Your task to perform on an android device: Check the latest toasters on Target. Image 0: 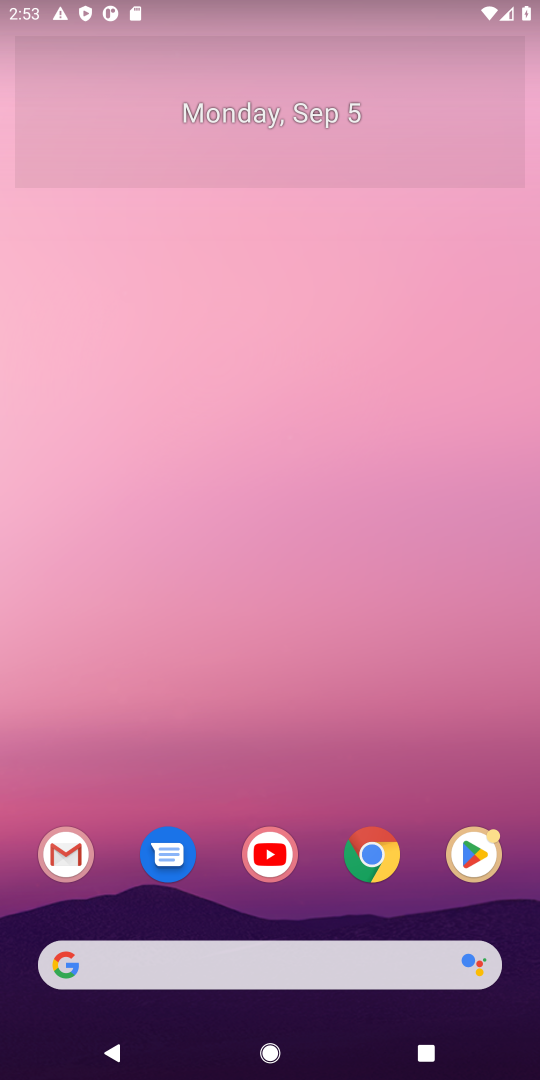
Step 0: click (336, 959)
Your task to perform on an android device: Check the latest toasters on Target. Image 1: 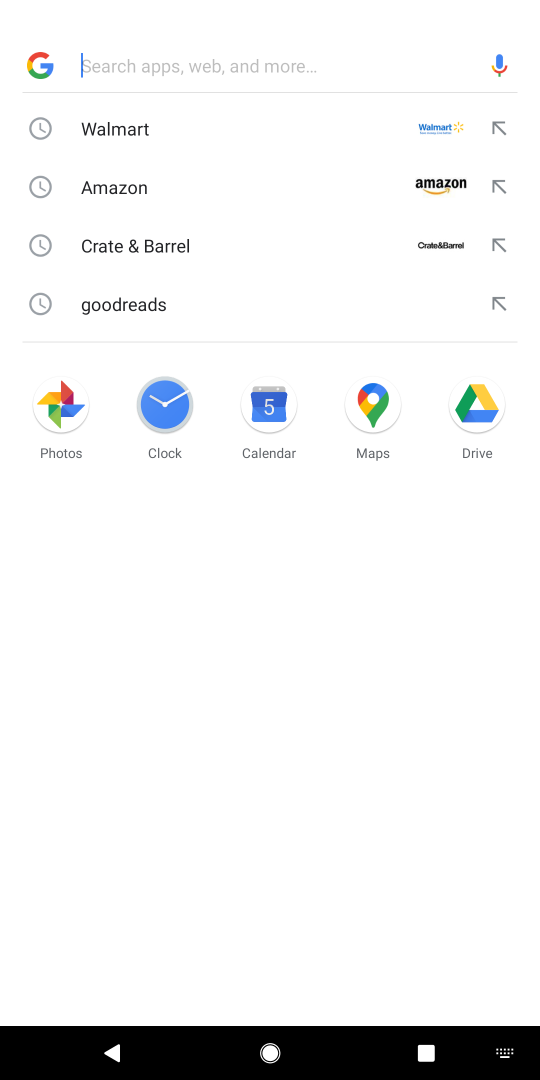
Step 1: type "target"
Your task to perform on an android device: Check the latest toasters on Target. Image 2: 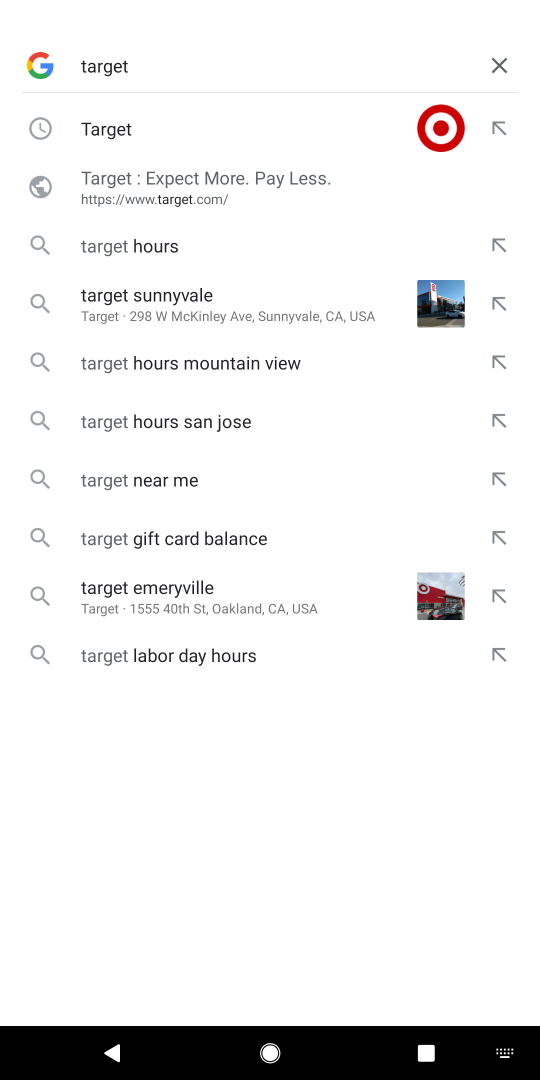
Step 2: press enter
Your task to perform on an android device: Check the latest toasters on Target. Image 3: 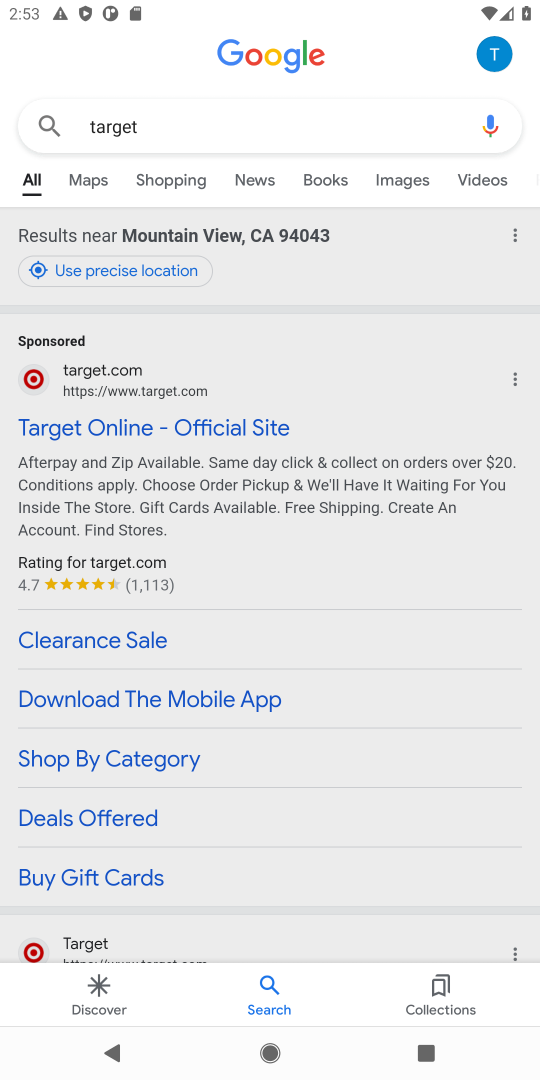
Step 3: click (142, 423)
Your task to perform on an android device: Check the latest toasters on Target. Image 4: 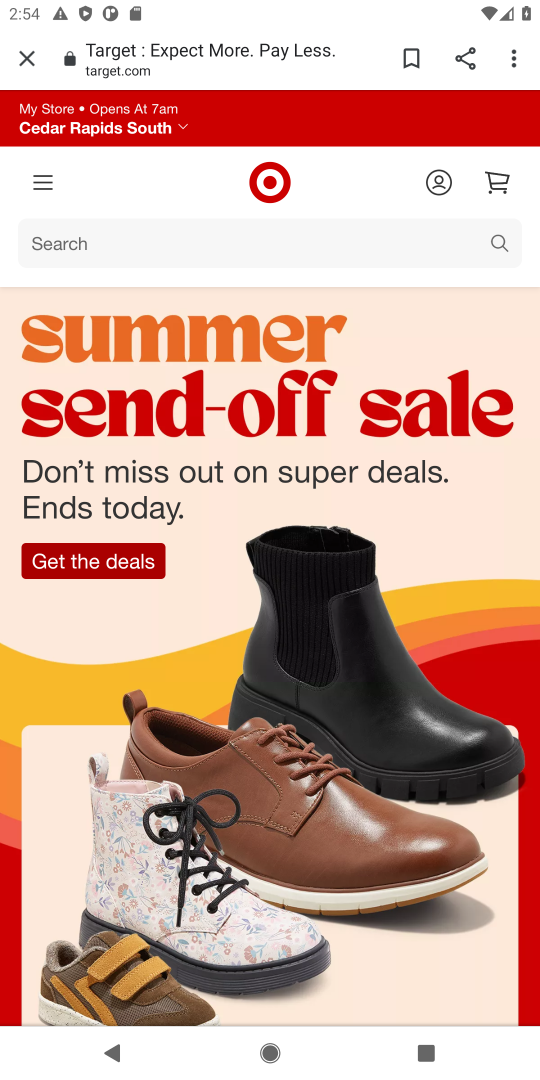
Step 4: click (72, 245)
Your task to perform on an android device: Check the latest toasters on Target. Image 5: 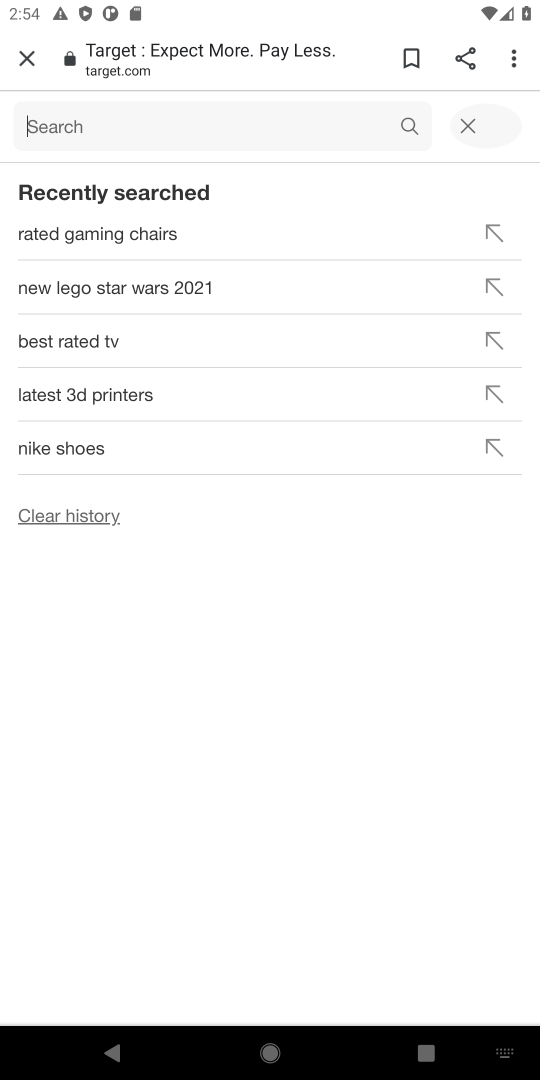
Step 5: type "latest toasters"
Your task to perform on an android device: Check the latest toasters on Target. Image 6: 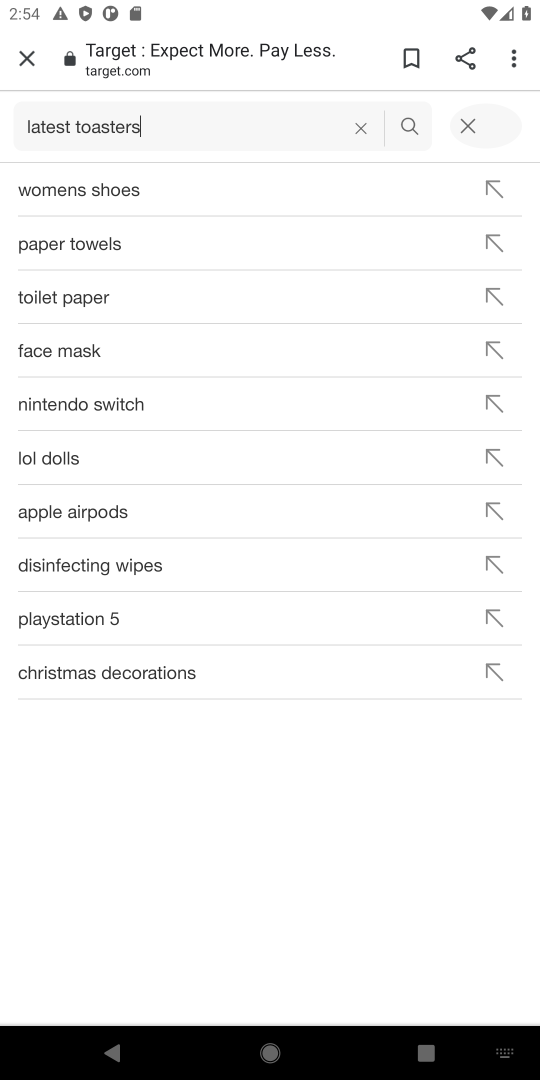
Step 6: press enter
Your task to perform on an android device: Check the latest toasters on Target. Image 7: 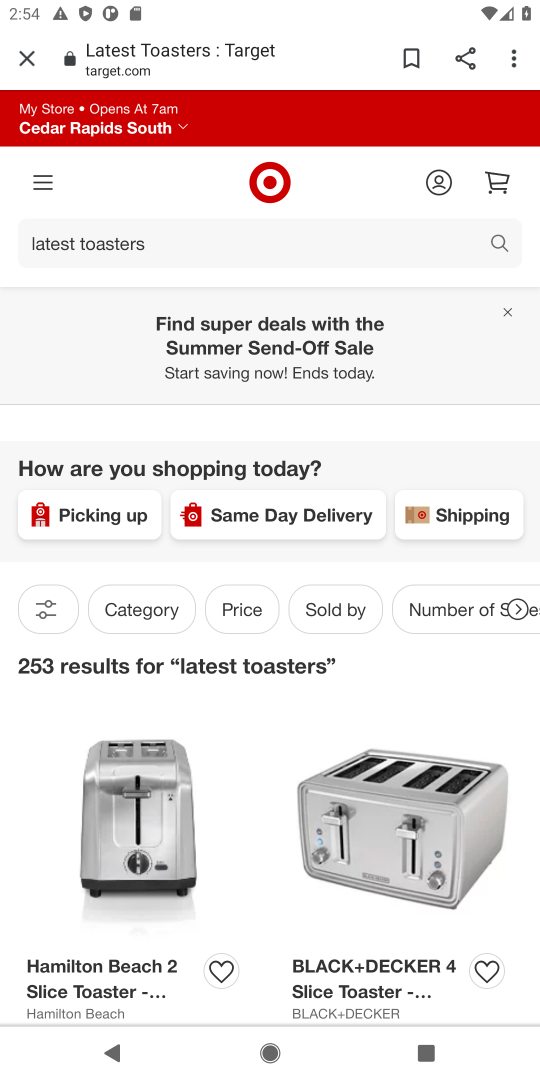
Step 7: task complete